Your task to perform on an android device: Open battery settings Image 0: 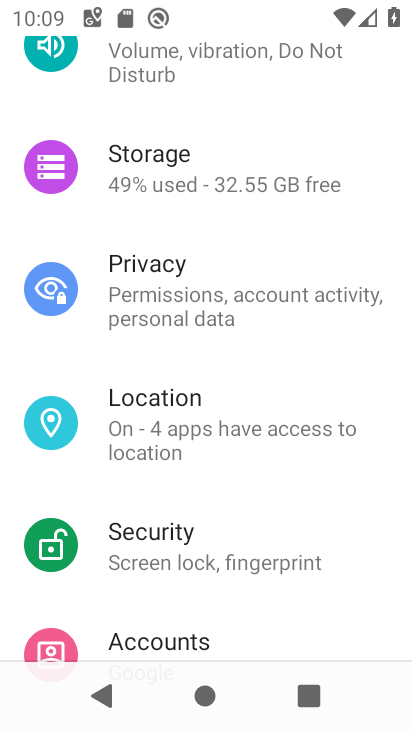
Step 0: drag from (210, 595) to (259, 463)
Your task to perform on an android device: Open battery settings Image 1: 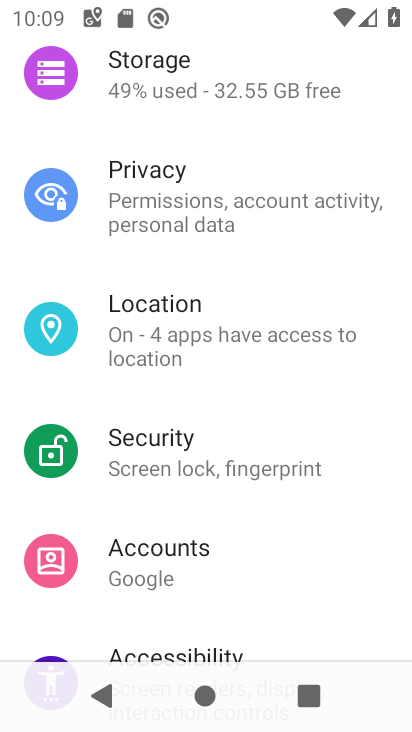
Step 1: drag from (270, 567) to (283, 421)
Your task to perform on an android device: Open battery settings Image 2: 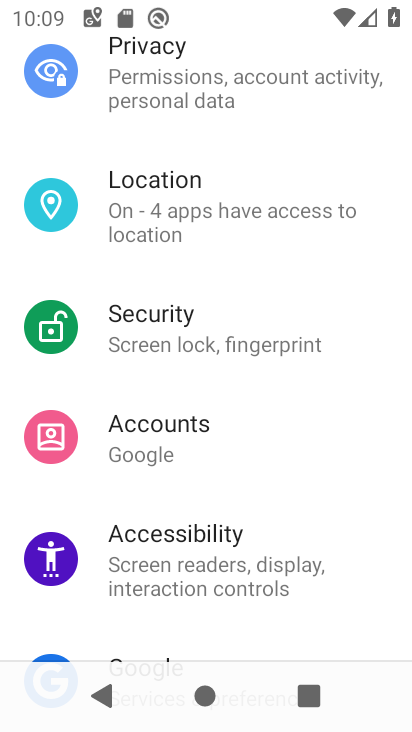
Step 2: drag from (257, 523) to (281, 311)
Your task to perform on an android device: Open battery settings Image 3: 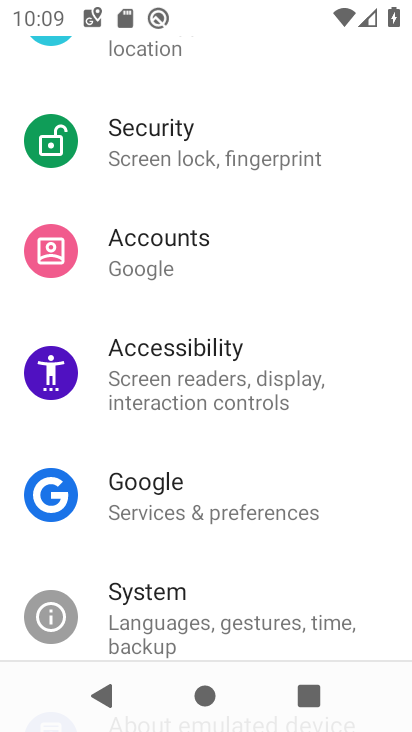
Step 3: drag from (257, 337) to (239, 654)
Your task to perform on an android device: Open battery settings Image 4: 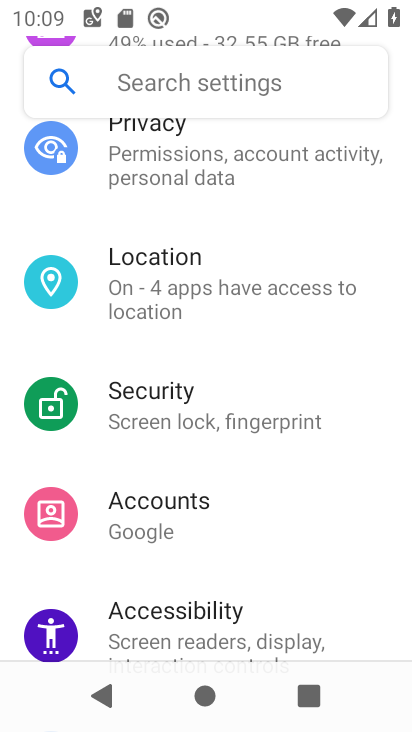
Step 4: drag from (204, 379) to (175, 525)
Your task to perform on an android device: Open battery settings Image 5: 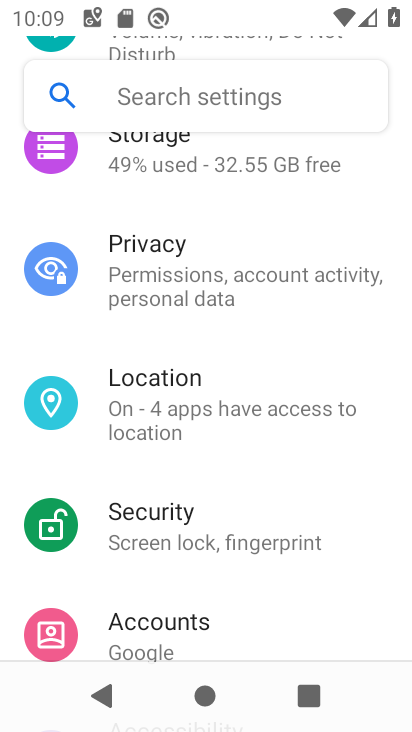
Step 5: drag from (162, 332) to (168, 399)
Your task to perform on an android device: Open battery settings Image 6: 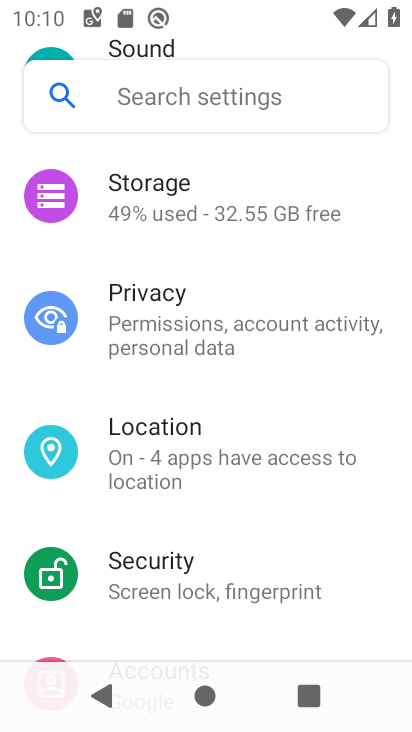
Step 6: drag from (177, 343) to (180, 411)
Your task to perform on an android device: Open battery settings Image 7: 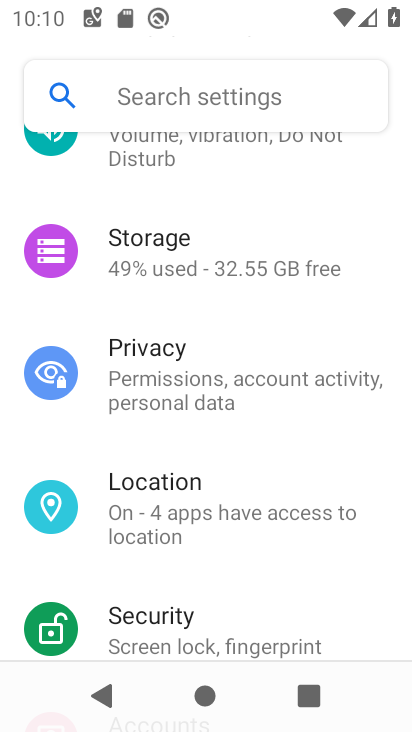
Step 7: drag from (191, 322) to (188, 422)
Your task to perform on an android device: Open battery settings Image 8: 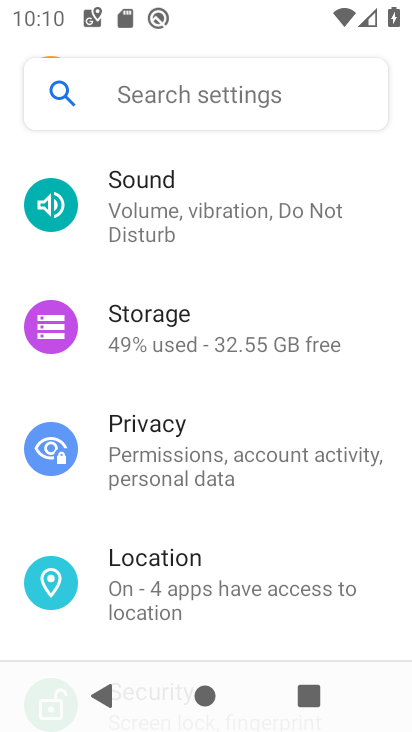
Step 8: drag from (214, 283) to (214, 368)
Your task to perform on an android device: Open battery settings Image 9: 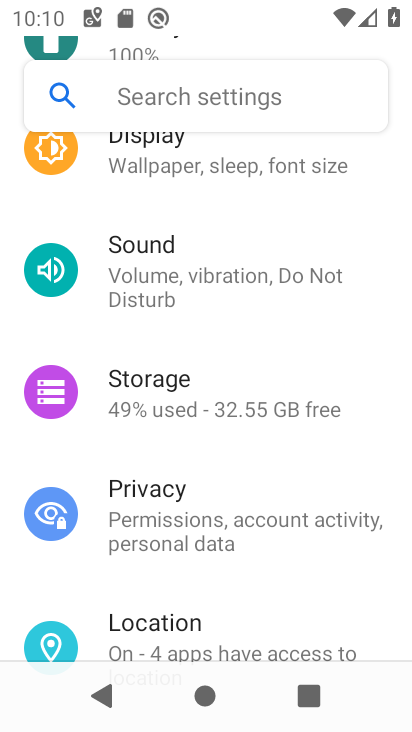
Step 9: drag from (230, 274) to (223, 365)
Your task to perform on an android device: Open battery settings Image 10: 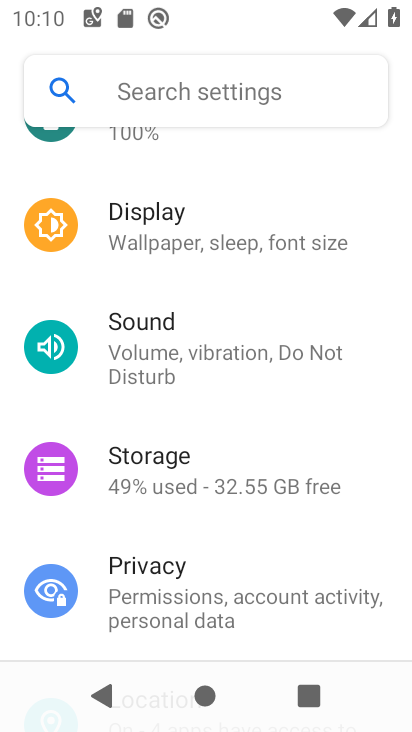
Step 10: drag from (231, 249) to (215, 329)
Your task to perform on an android device: Open battery settings Image 11: 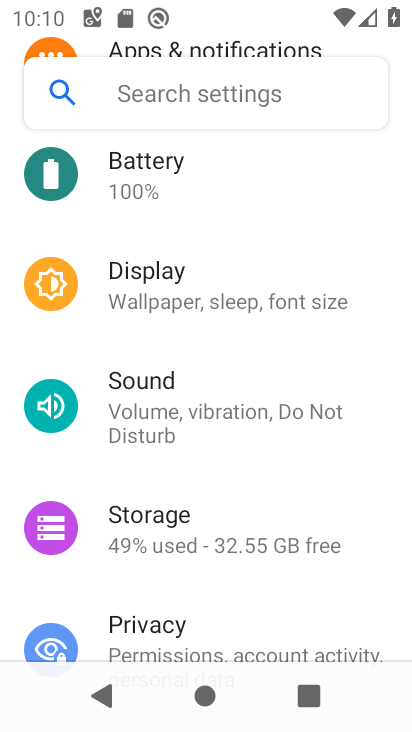
Step 11: click (171, 171)
Your task to perform on an android device: Open battery settings Image 12: 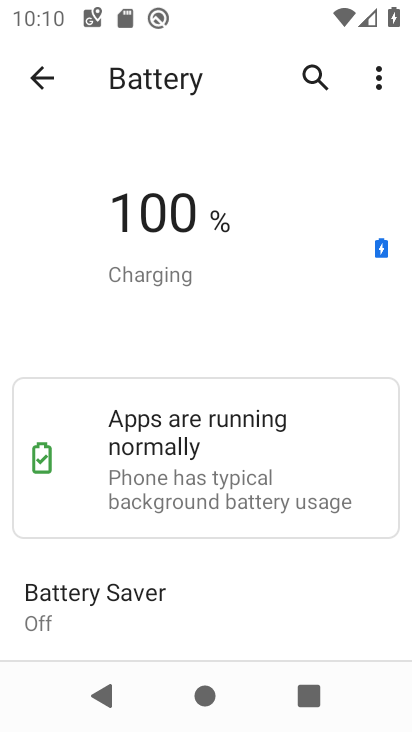
Step 12: task complete